Your task to perform on an android device: When is my next meeting? Image 0: 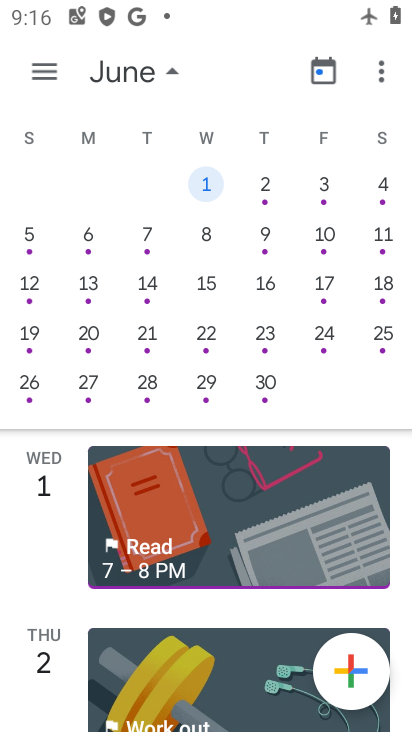
Step 0: press home button
Your task to perform on an android device: When is my next meeting? Image 1: 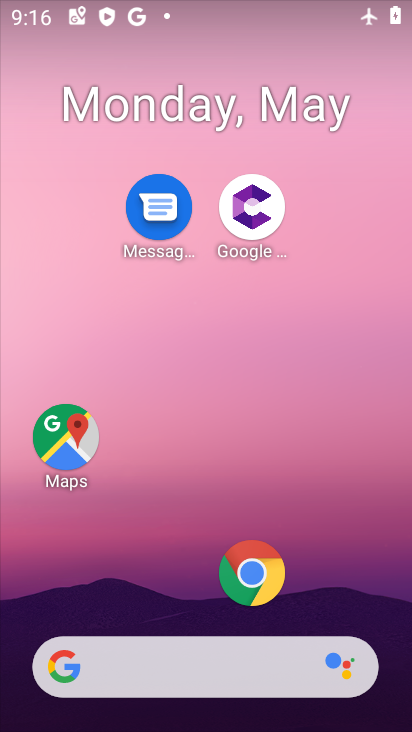
Step 1: drag from (191, 672) to (223, 209)
Your task to perform on an android device: When is my next meeting? Image 2: 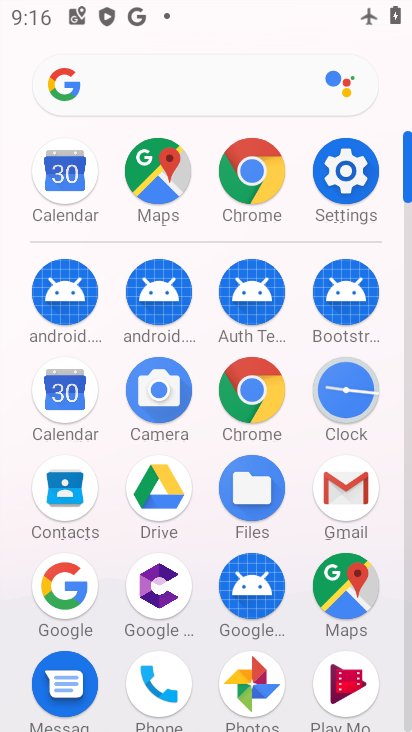
Step 2: click (80, 410)
Your task to perform on an android device: When is my next meeting? Image 3: 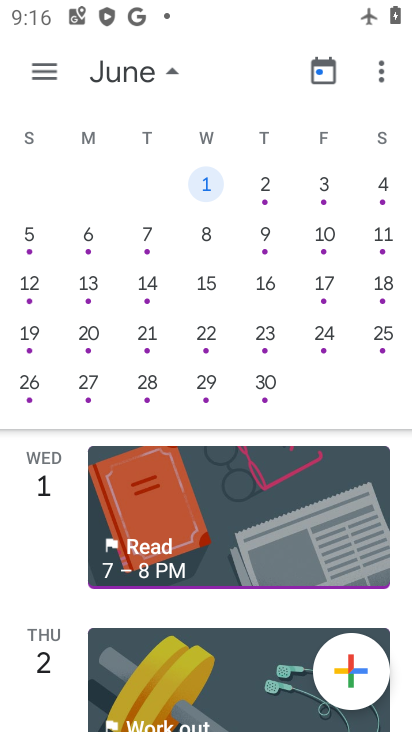
Step 3: drag from (41, 238) to (386, 277)
Your task to perform on an android device: When is my next meeting? Image 4: 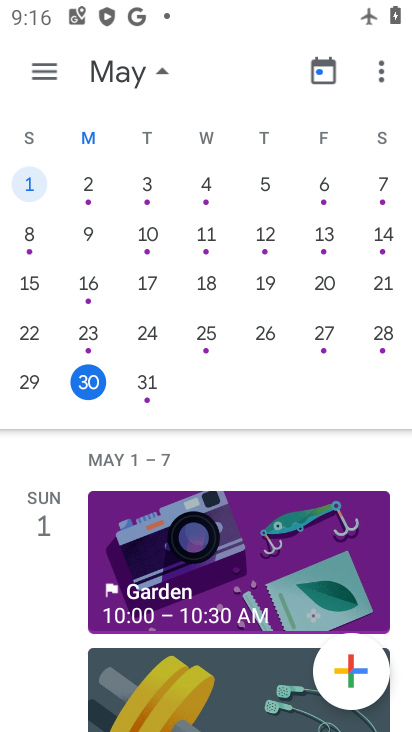
Step 4: click (83, 365)
Your task to perform on an android device: When is my next meeting? Image 5: 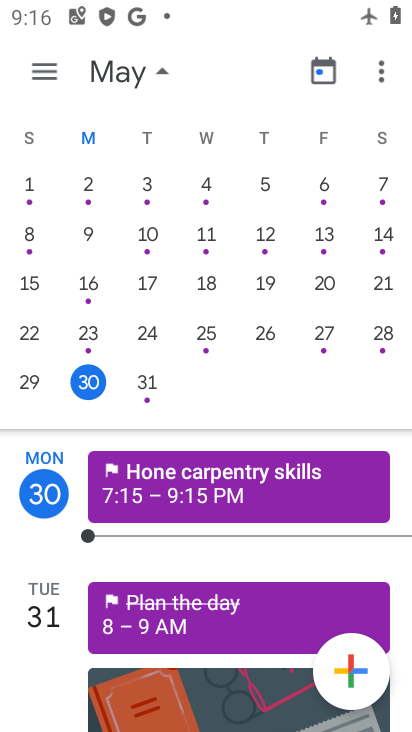
Step 5: click (47, 70)
Your task to perform on an android device: When is my next meeting? Image 6: 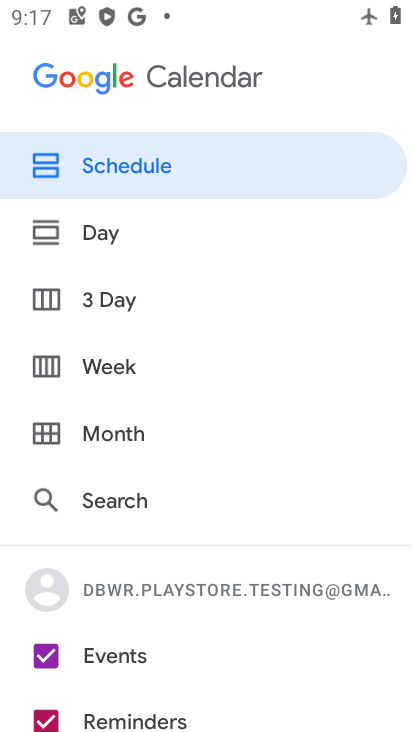
Step 6: task complete